Your task to perform on an android device: allow notifications from all sites in the chrome app Image 0: 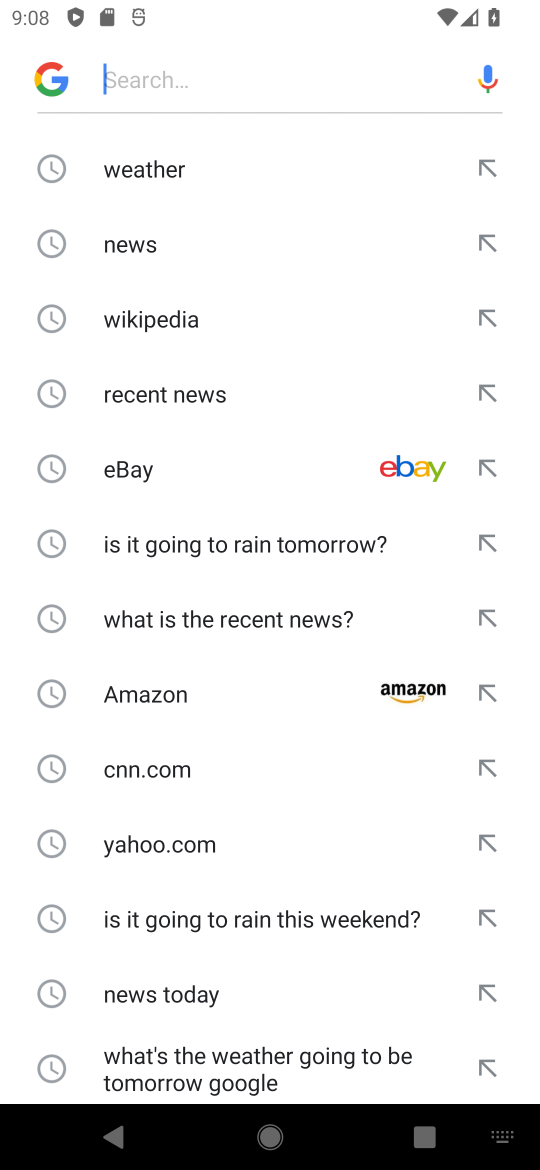
Step 0: press home button
Your task to perform on an android device: allow notifications from all sites in the chrome app Image 1: 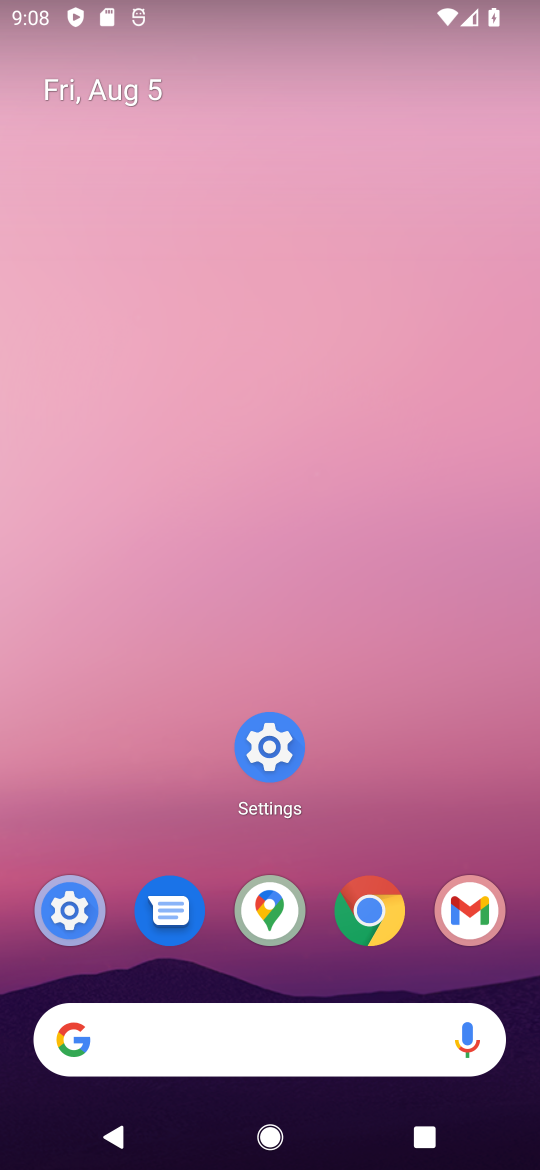
Step 1: click (364, 915)
Your task to perform on an android device: allow notifications from all sites in the chrome app Image 2: 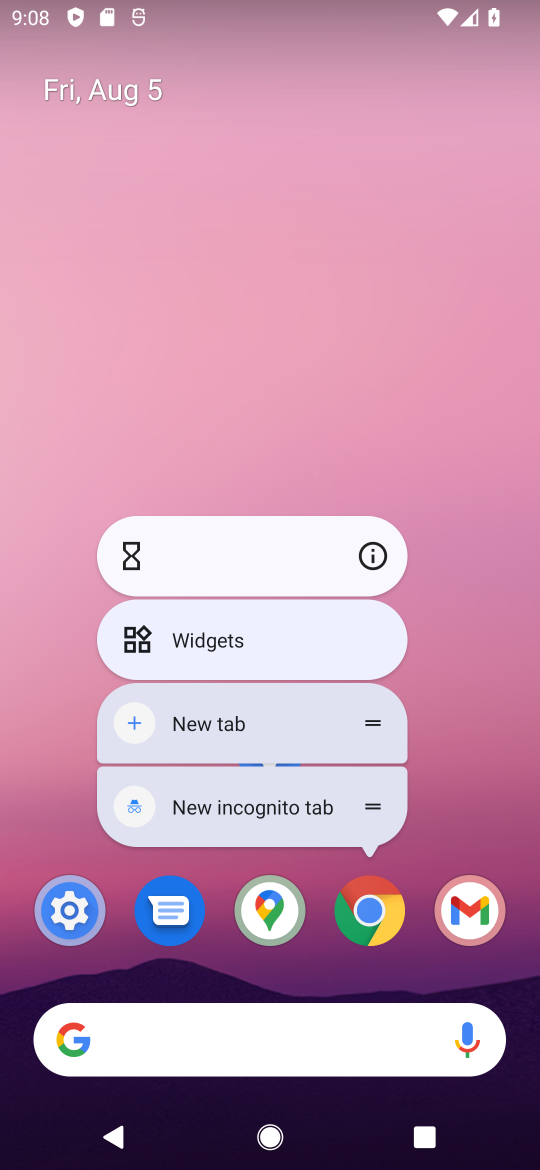
Step 2: click (369, 912)
Your task to perform on an android device: allow notifications from all sites in the chrome app Image 3: 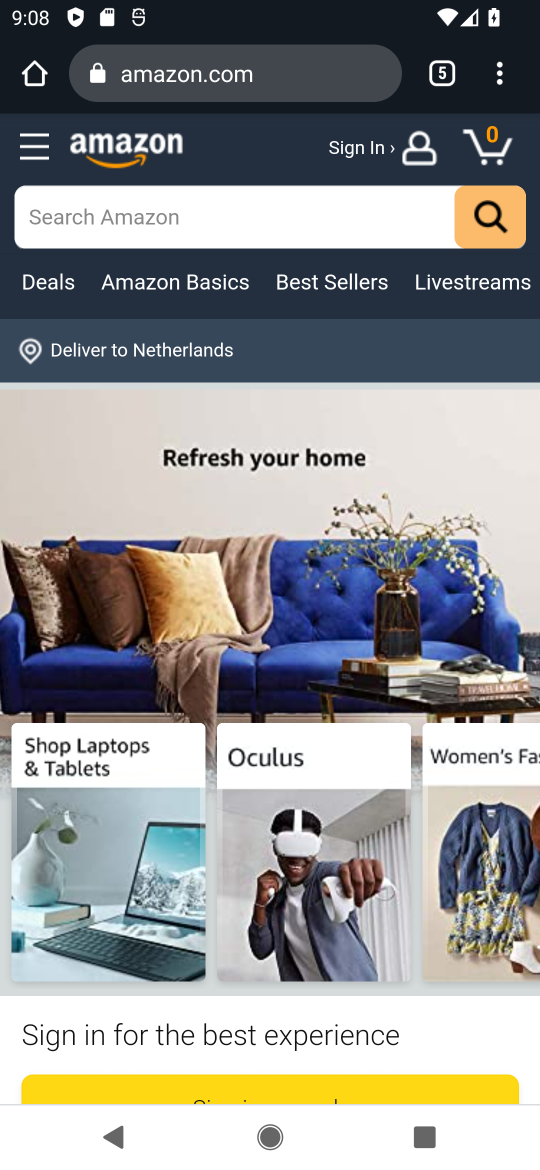
Step 3: drag from (495, 71) to (331, 959)
Your task to perform on an android device: allow notifications from all sites in the chrome app Image 4: 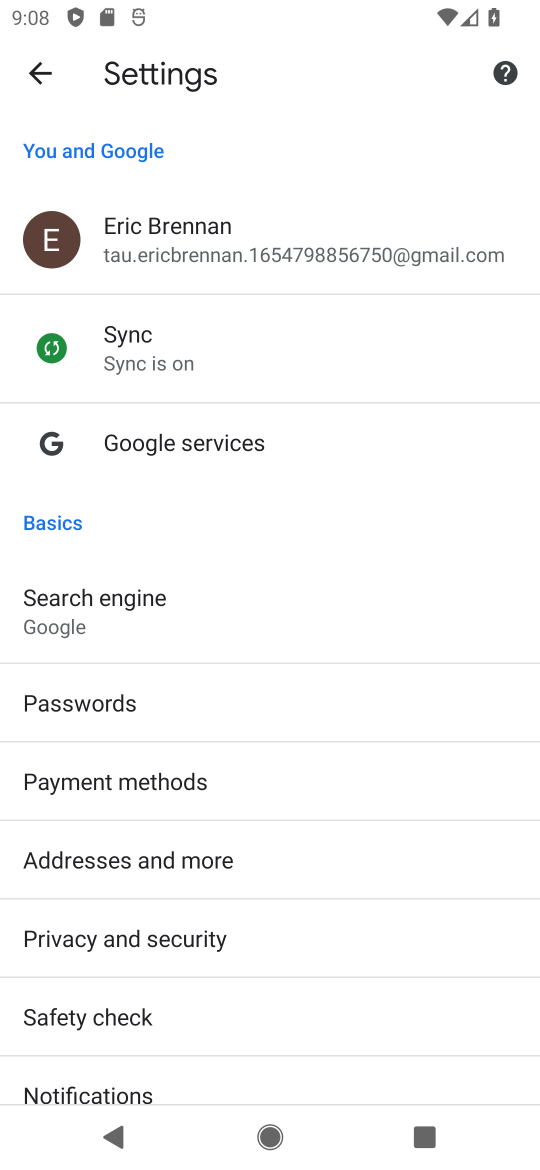
Step 4: drag from (180, 1020) to (345, 379)
Your task to perform on an android device: allow notifications from all sites in the chrome app Image 5: 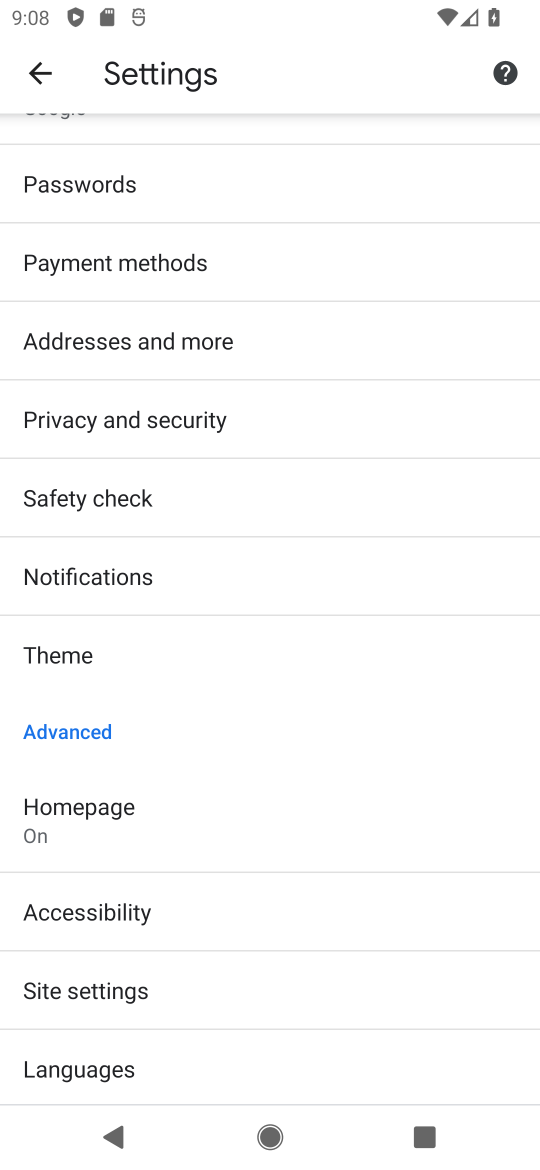
Step 5: click (89, 986)
Your task to perform on an android device: allow notifications from all sites in the chrome app Image 6: 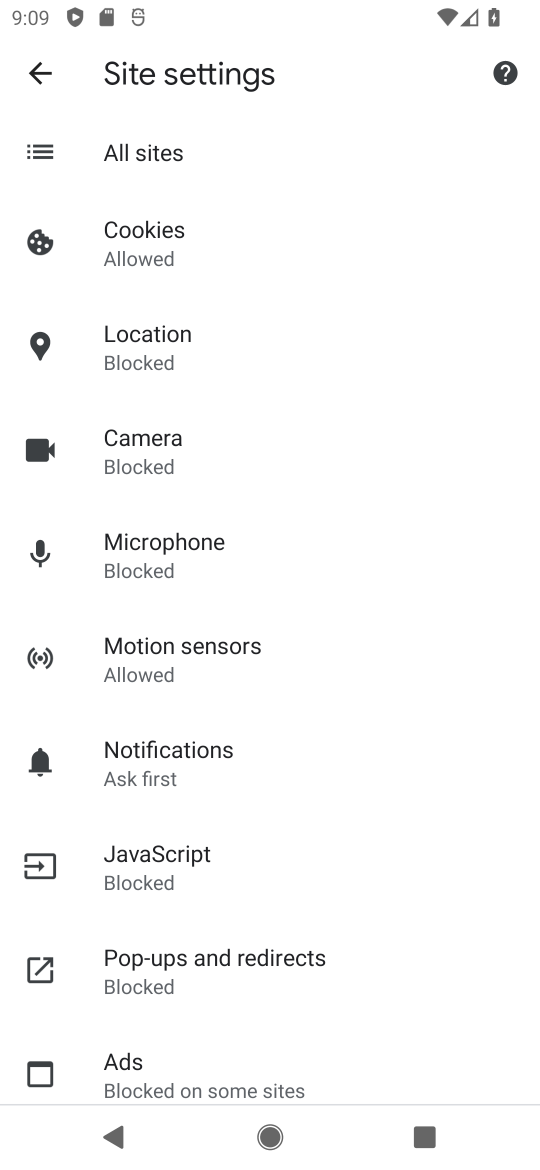
Step 6: click (183, 762)
Your task to perform on an android device: allow notifications from all sites in the chrome app Image 7: 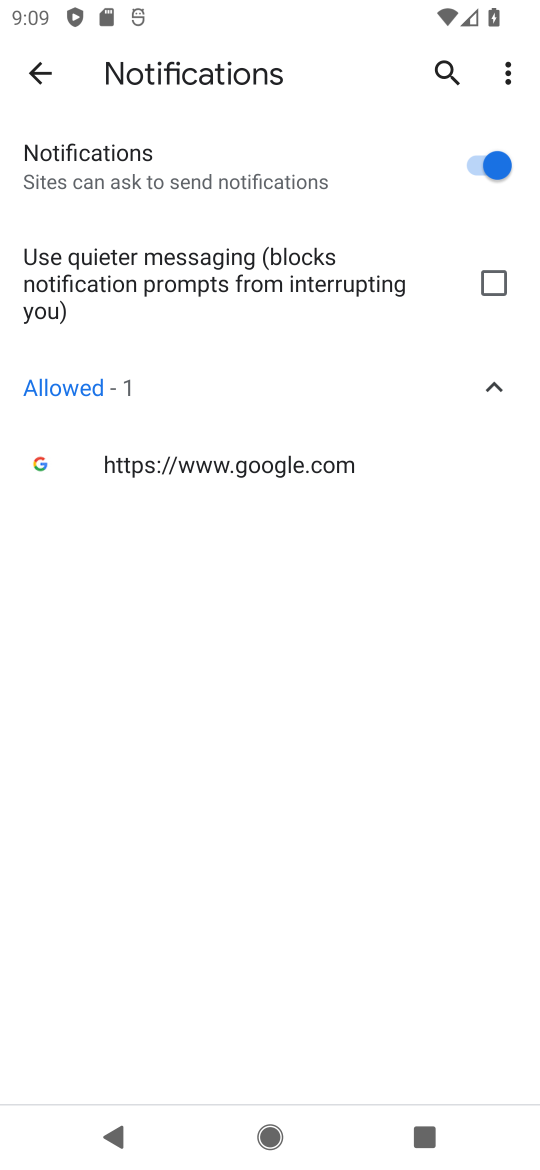
Step 7: task complete